Your task to perform on an android device: toggle javascript in the chrome app Image 0: 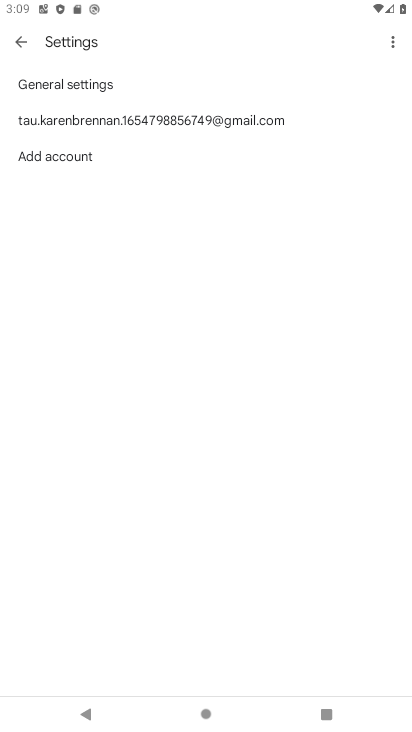
Step 0: press home button
Your task to perform on an android device: toggle javascript in the chrome app Image 1: 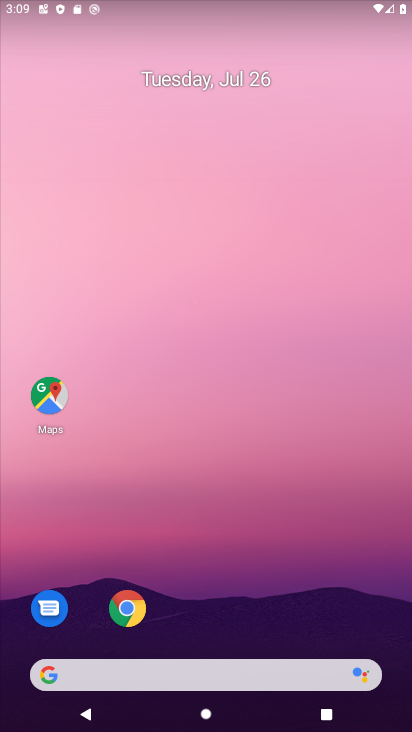
Step 1: click (117, 615)
Your task to perform on an android device: toggle javascript in the chrome app Image 2: 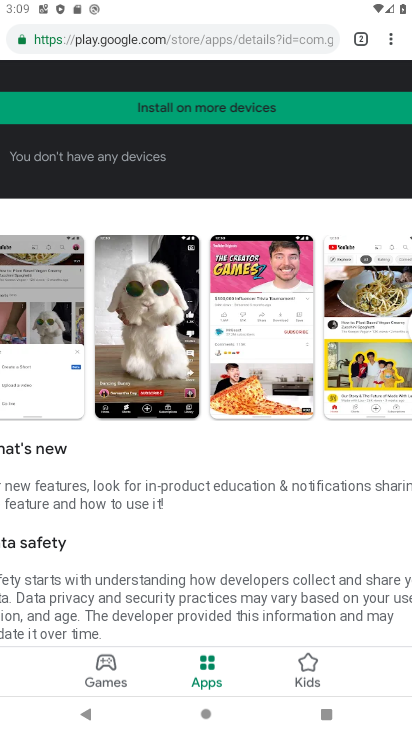
Step 2: click (383, 50)
Your task to perform on an android device: toggle javascript in the chrome app Image 3: 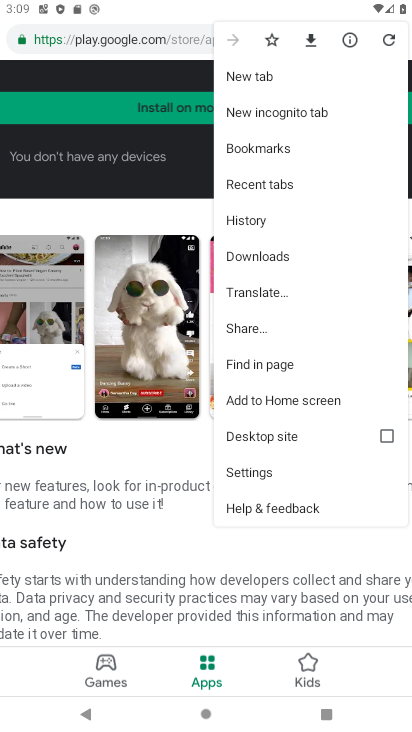
Step 3: click (270, 470)
Your task to perform on an android device: toggle javascript in the chrome app Image 4: 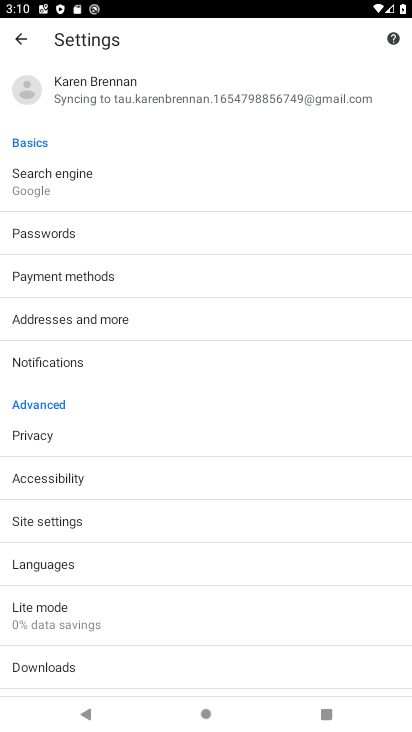
Step 4: click (84, 532)
Your task to perform on an android device: toggle javascript in the chrome app Image 5: 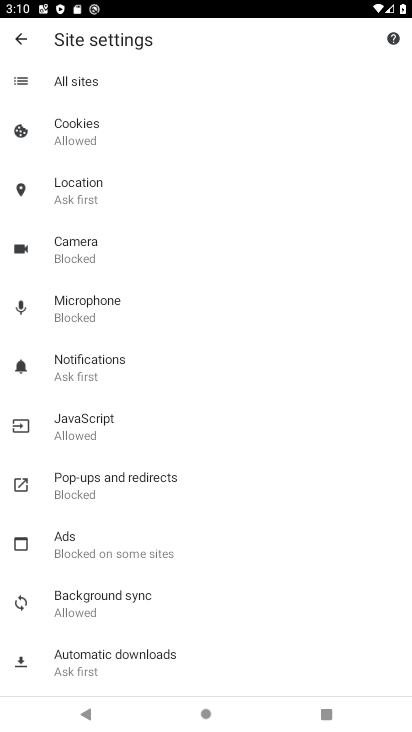
Step 5: click (95, 431)
Your task to perform on an android device: toggle javascript in the chrome app Image 6: 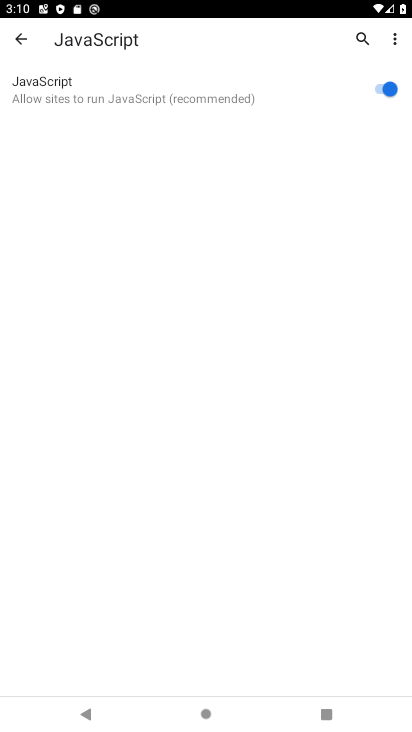
Step 6: click (364, 109)
Your task to perform on an android device: toggle javascript in the chrome app Image 7: 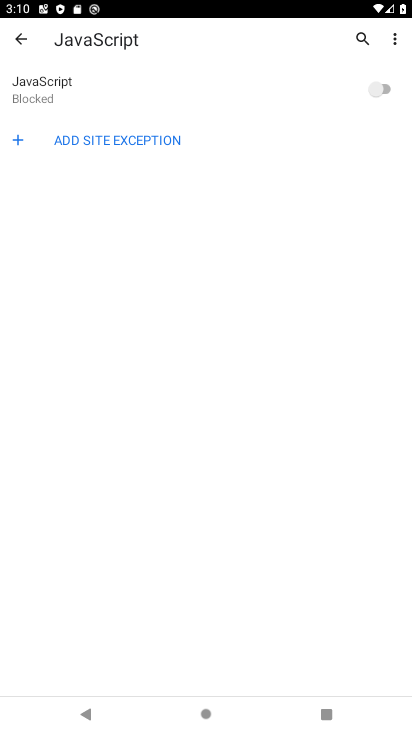
Step 7: task complete